Your task to perform on an android device: Show me productivity apps on the Play Store Image 0: 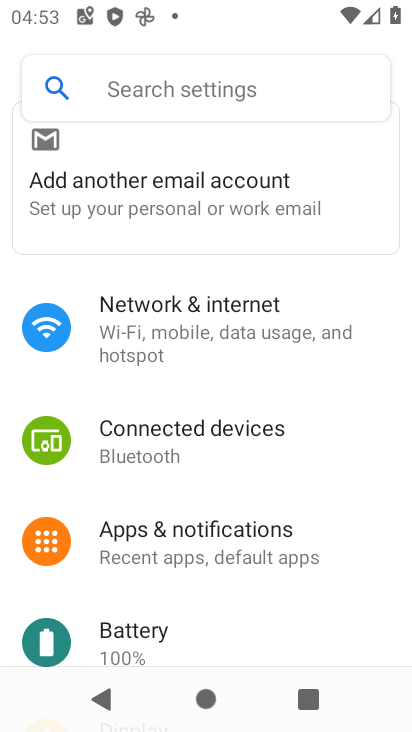
Step 0: press home button
Your task to perform on an android device: Show me productivity apps on the Play Store Image 1: 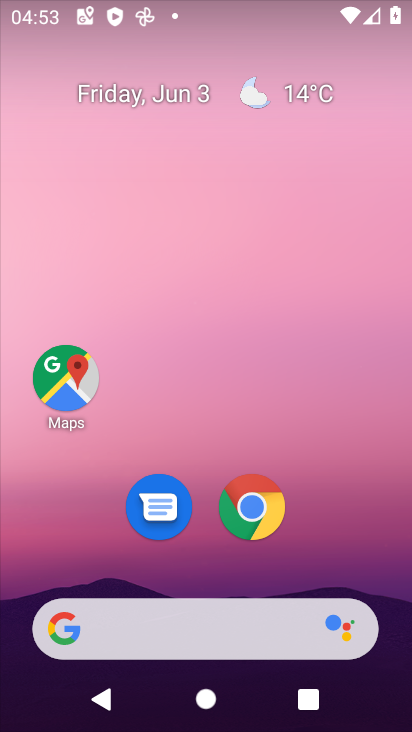
Step 1: drag from (362, 558) to (291, 12)
Your task to perform on an android device: Show me productivity apps on the Play Store Image 2: 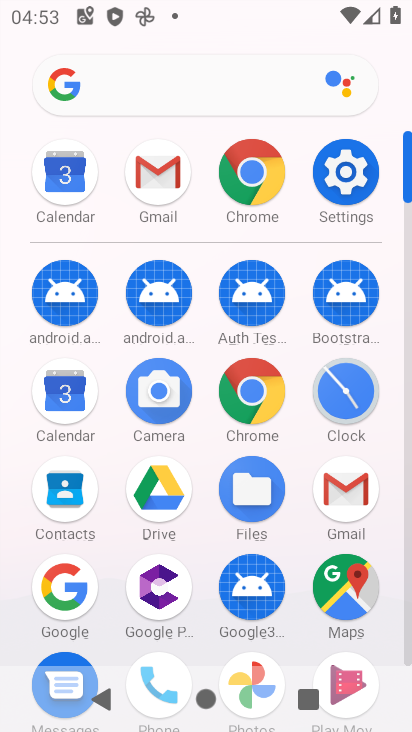
Step 2: drag from (108, 644) to (102, 285)
Your task to perform on an android device: Show me productivity apps on the Play Store Image 3: 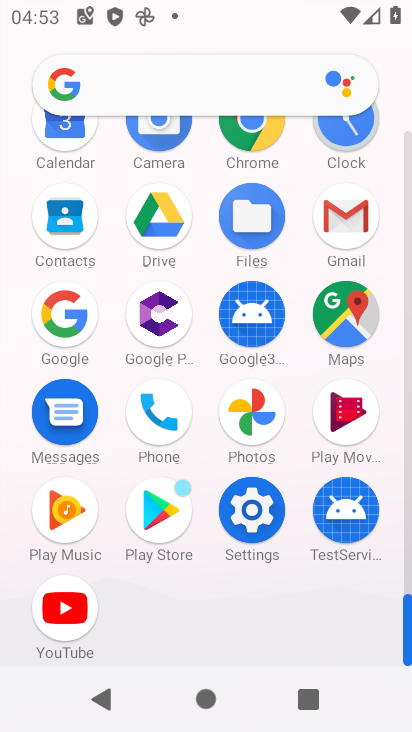
Step 3: click (162, 500)
Your task to perform on an android device: Show me productivity apps on the Play Store Image 4: 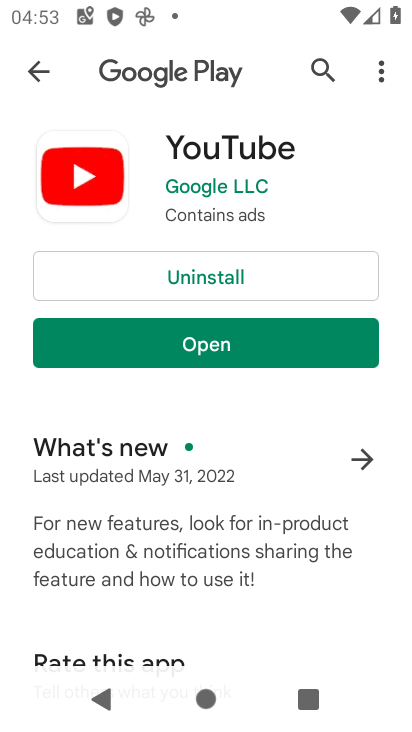
Step 4: click (36, 68)
Your task to perform on an android device: Show me productivity apps on the Play Store Image 5: 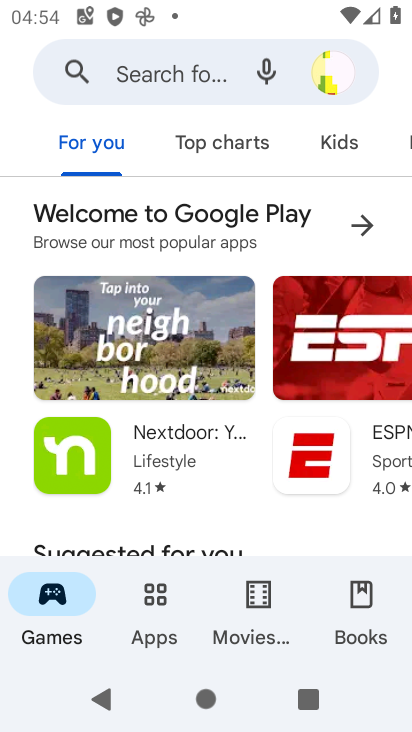
Step 5: click (134, 605)
Your task to perform on an android device: Show me productivity apps on the Play Store Image 6: 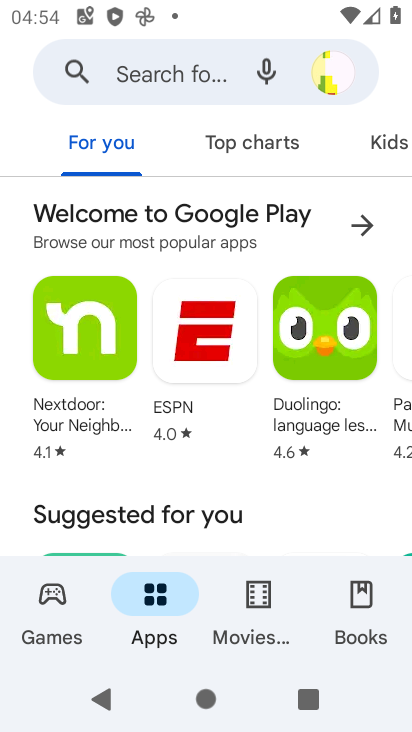
Step 6: drag from (366, 160) to (84, 159)
Your task to perform on an android device: Show me productivity apps on the Play Store Image 7: 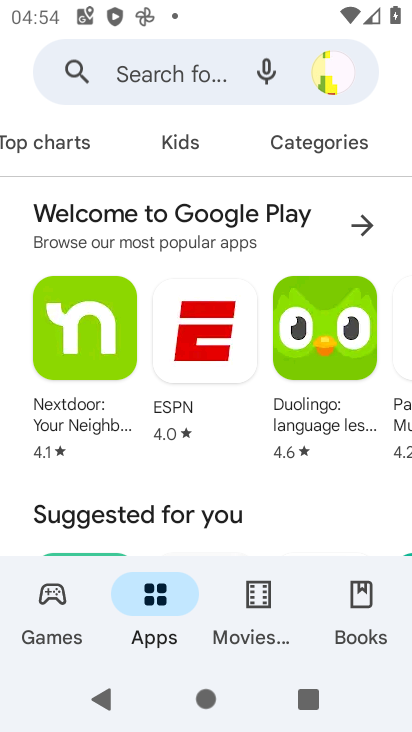
Step 7: click (322, 138)
Your task to perform on an android device: Show me productivity apps on the Play Store Image 8: 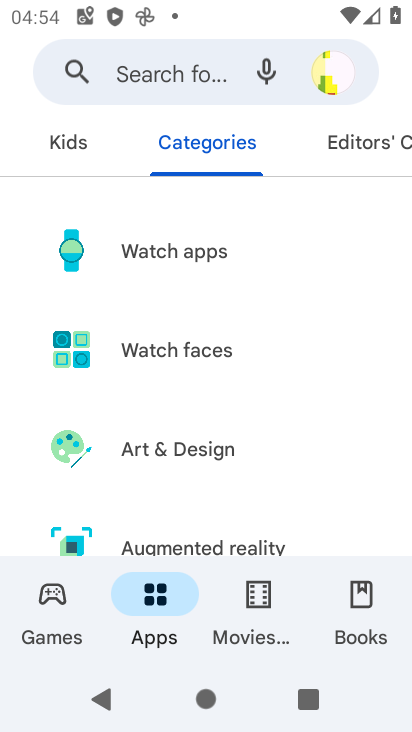
Step 8: drag from (286, 536) to (291, 6)
Your task to perform on an android device: Show me productivity apps on the Play Store Image 9: 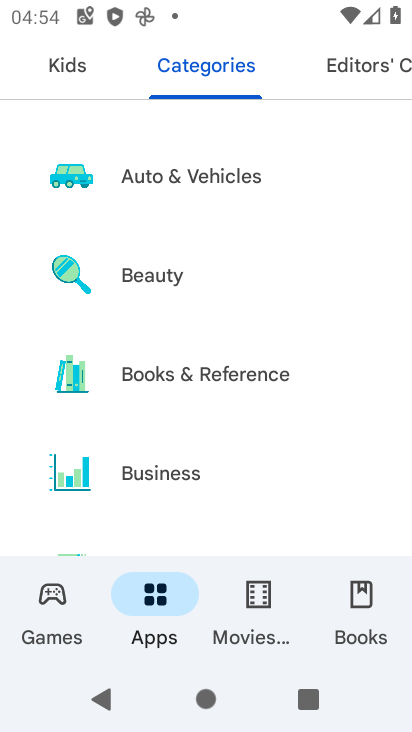
Step 9: drag from (303, 529) to (270, 33)
Your task to perform on an android device: Show me productivity apps on the Play Store Image 10: 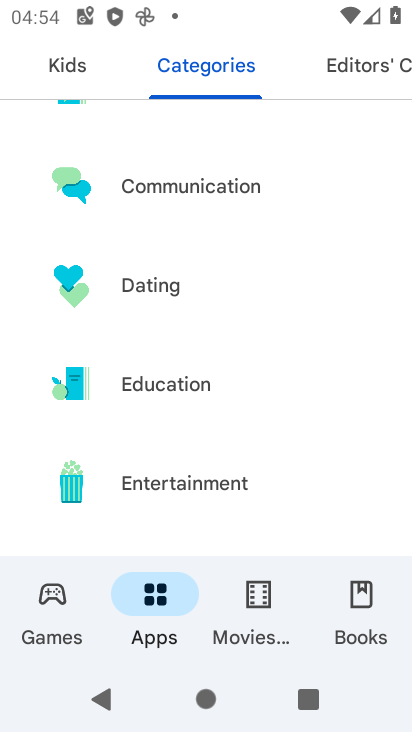
Step 10: drag from (344, 512) to (279, 9)
Your task to perform on an android device: Show me productivity apps on the Play Store Image 11: 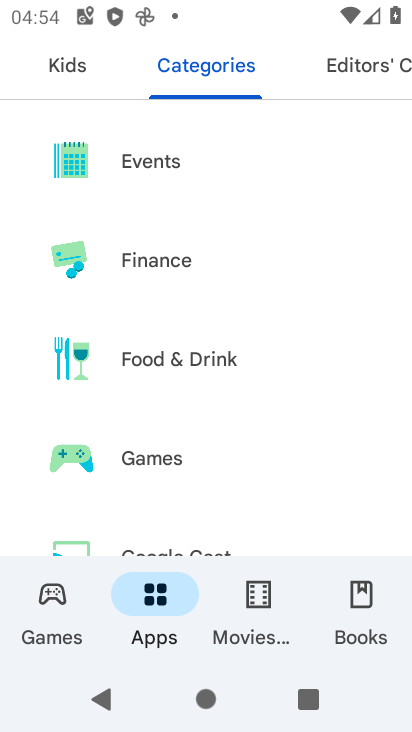
Step 11: drag from (306, 547) to (268, 0)
Your task to perform on an android device: Show me productivity apps on the Play Store Image 12: 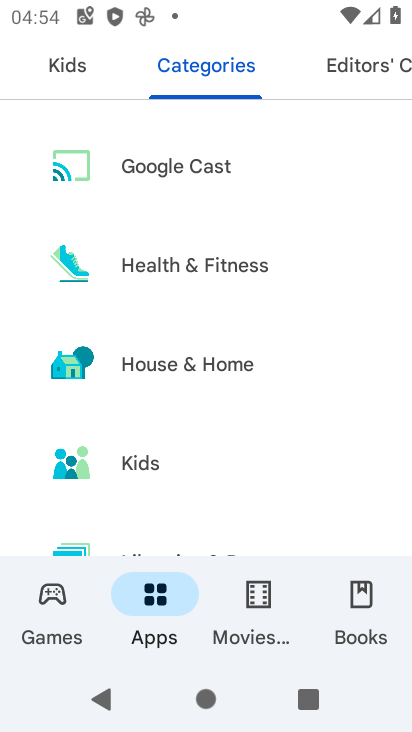
Step 12: drag from (331, 540) to (291, 34)
Your task to perform on an android device: Show me productivity apps on the Play Store Image 13: 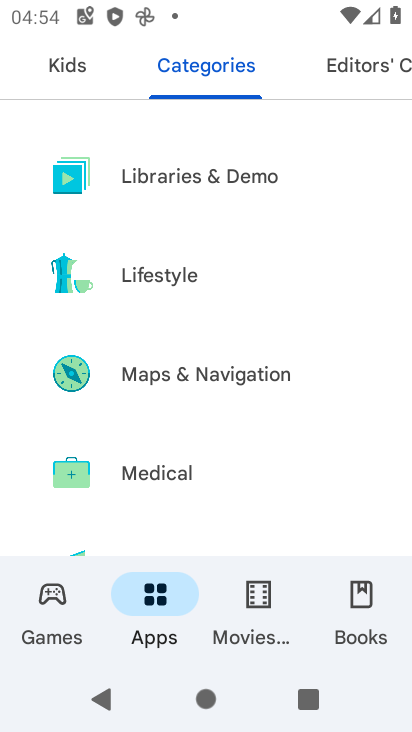
Step 13: drag from (336, 521) to (266, 28)
Your task to perform on an android device: Show me productivity apps on the Play Store Image 14: 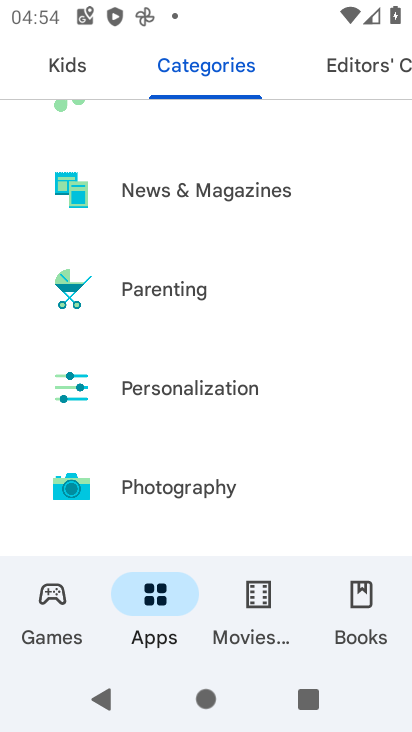
Step 14: drag from (323, 535) to (312, 160)
Your task to perform on an android device: Show me productivity apps on the Play Store Image 15: 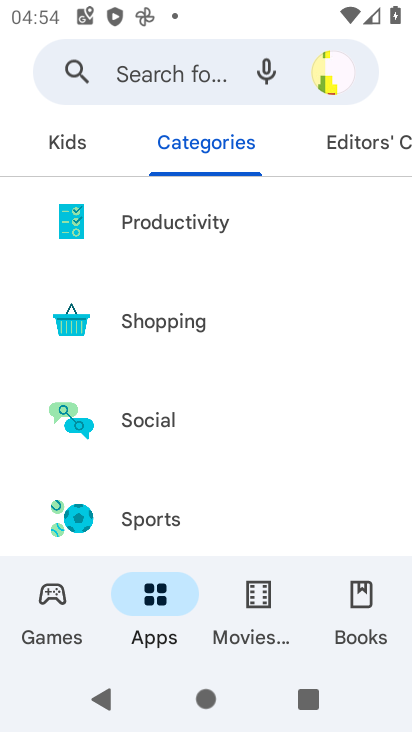
Step 15: click (203, 229)
Your task to perform on an android device: Show me productivity apps on the Play Store Image 16: 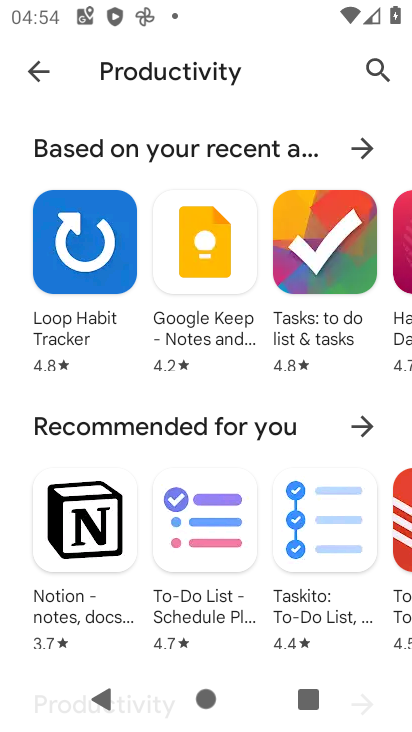
Step 16: task complete